Your task to perform on an android device: uninstall "Spotify" Image 0: 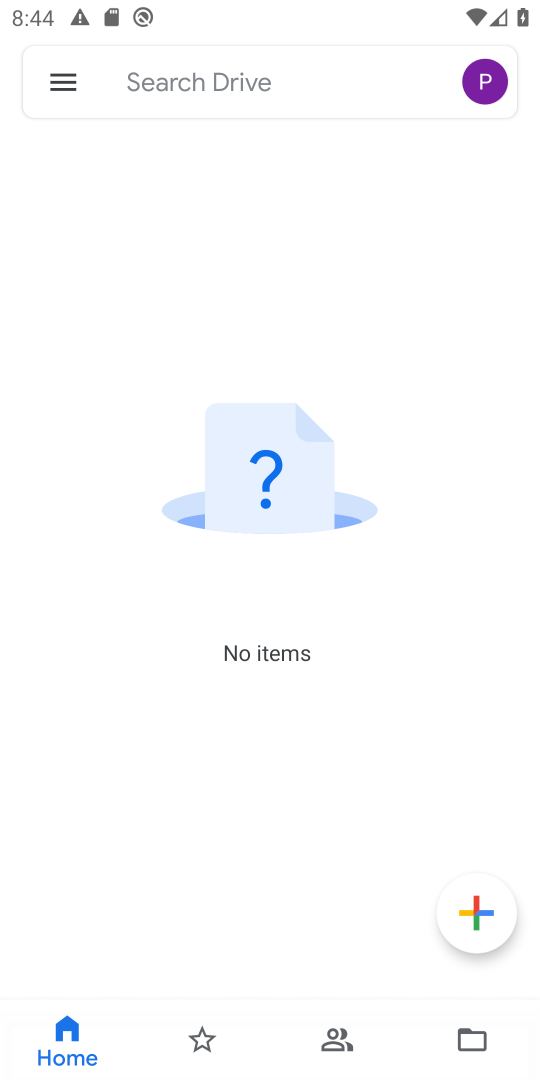
Step 0: press home button
Your task to perform on an android device: uninstall "Spotify" Image 1: 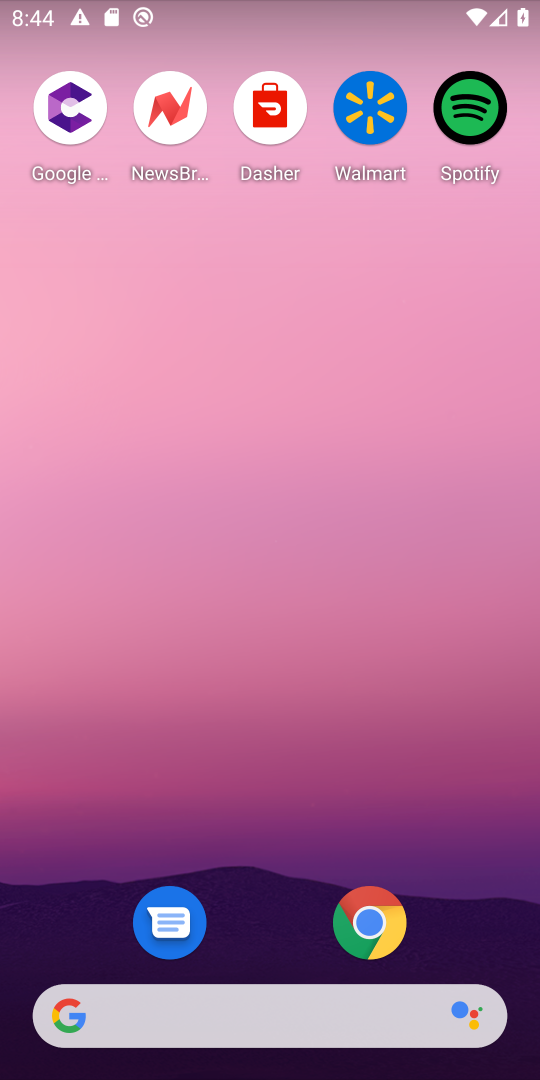
Step 1: drag from (259, 662) to (289, 92)
Your task to perform on an android device: uninstall "Spotify" Image 2: 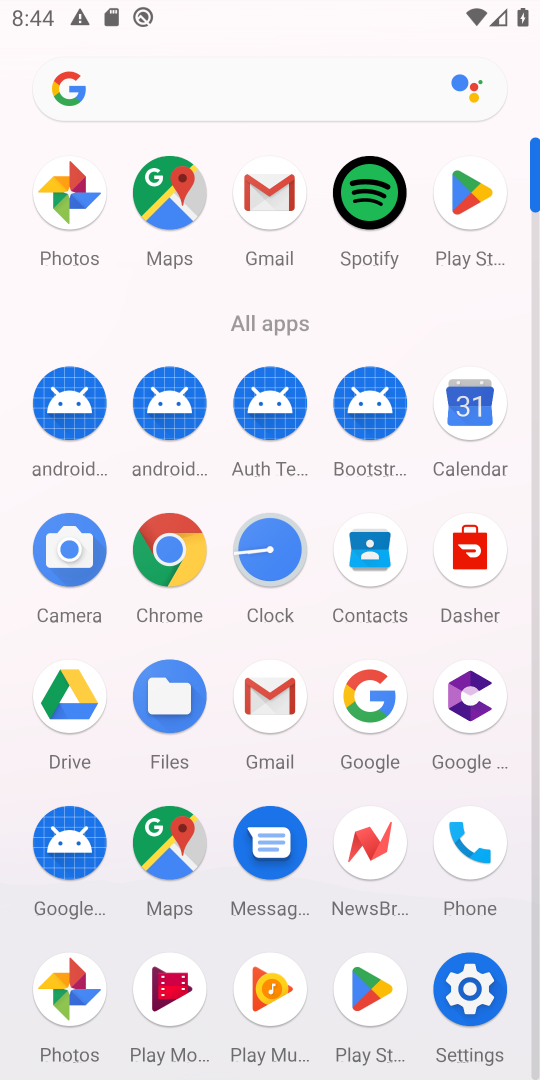
Step 2: click (463, 201)
Your task to perform on an android device: uninstall "Spotify" Image 3: 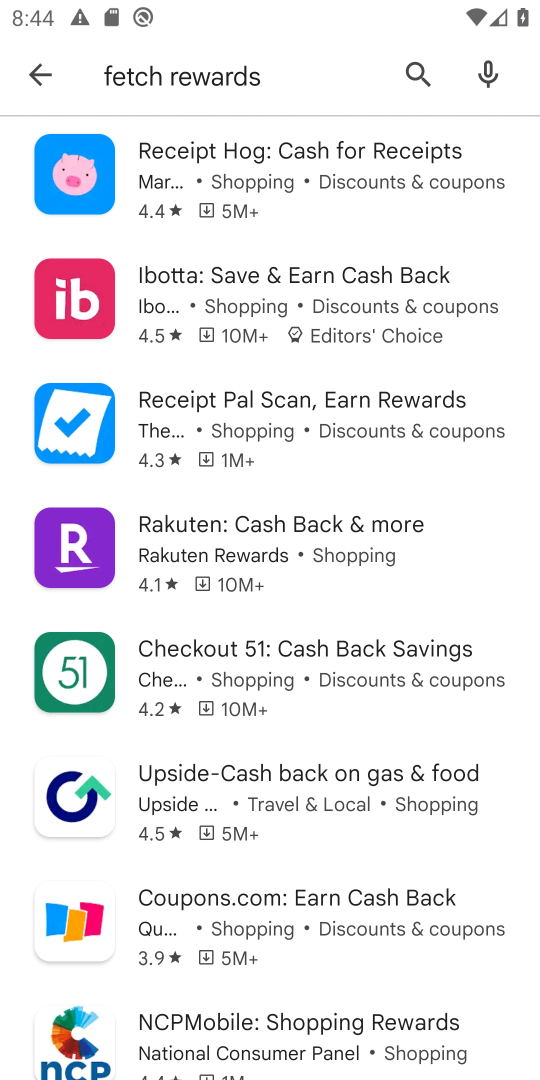
Step 3: click (411, 70)
Your task to perform on an android device: uninstall "Spotify" Image 4: 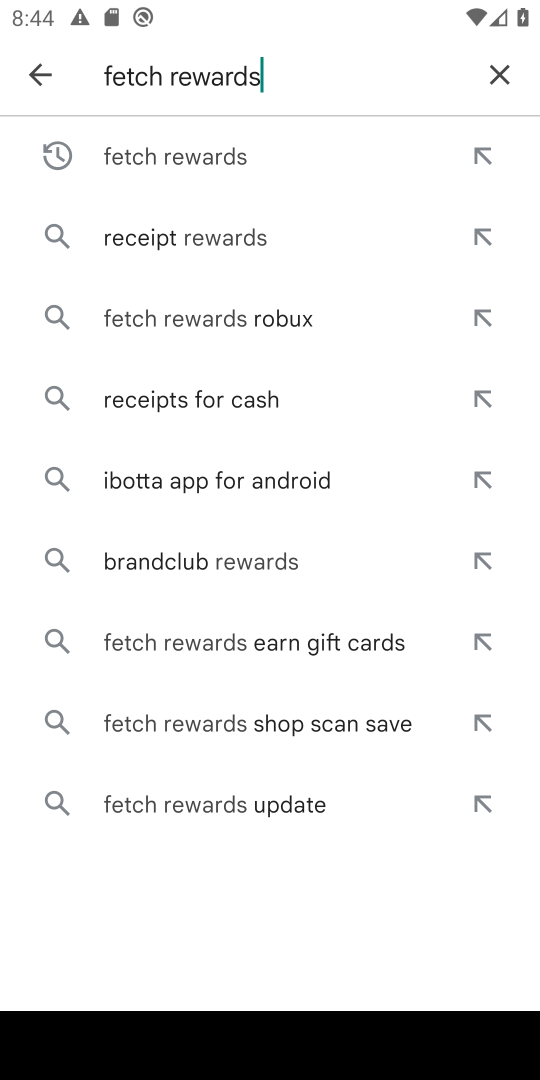
Step 4: click (498, 71)
Your task to perform on an android device: uninstall "Spotify" Image 5: 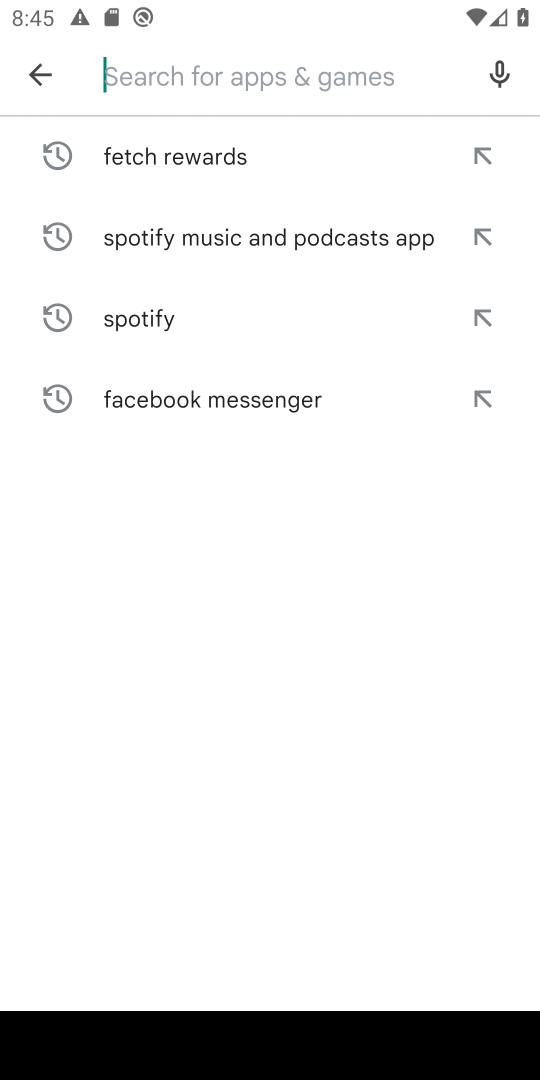
Step 5: type "Spotify"
Your task to perform on an android device: uninstall "Spotify" Image 6: 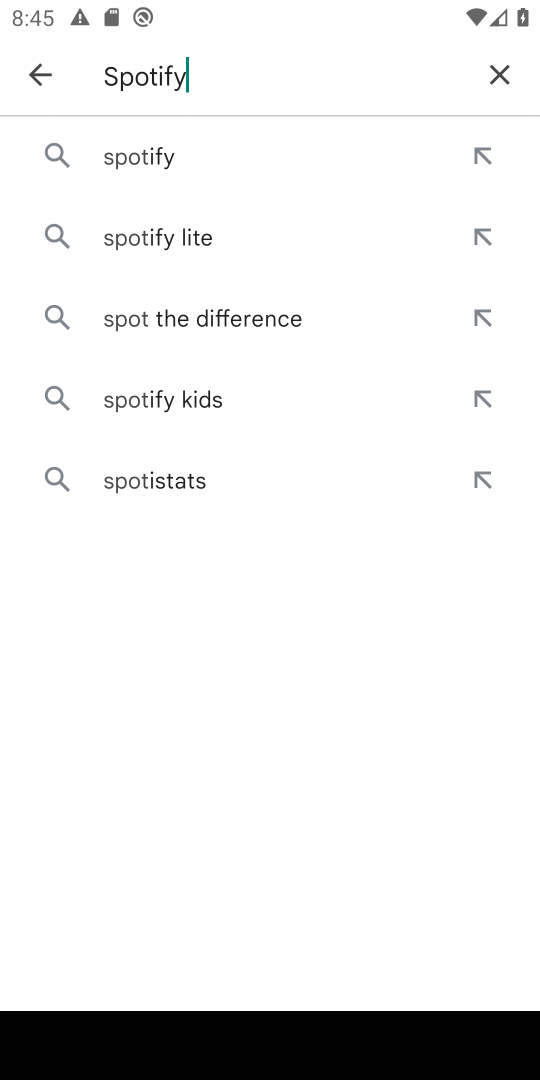
Step 6: type ""
Your task to perform on an android device: uninstall "Spotify" Image 7: 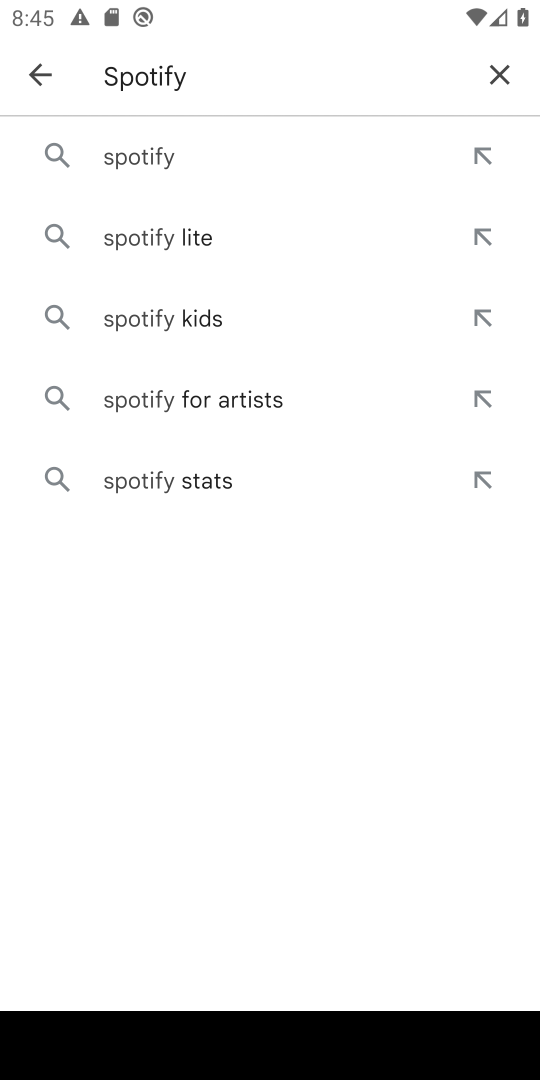
Step 7: click (136, 155)
Your task to perform on an android device: uninstall "Spotify" Image 8: 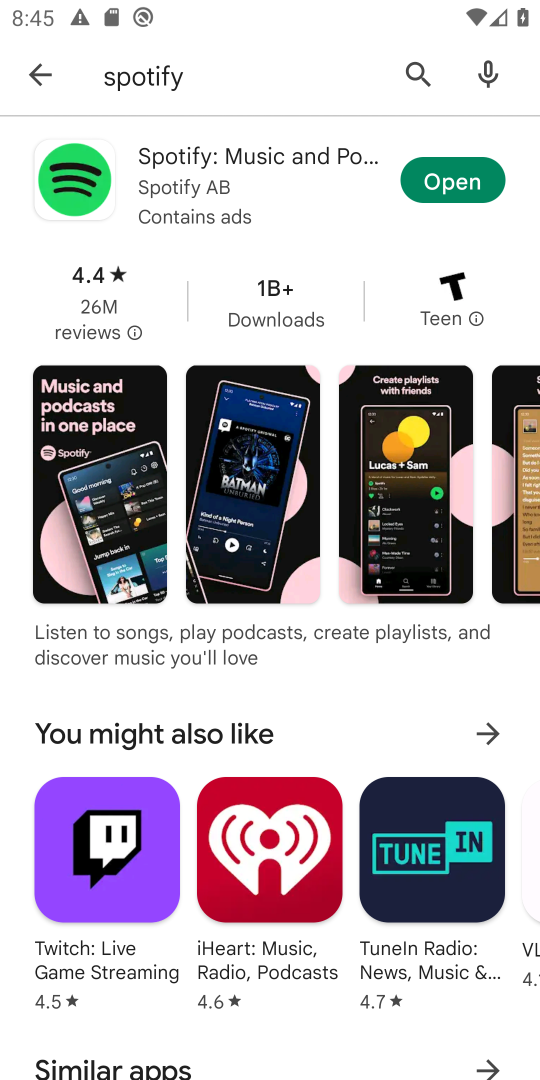
Step 8: click (195, 146)
Your task to perform on an android device: uninstall "Spotify" Image 9: 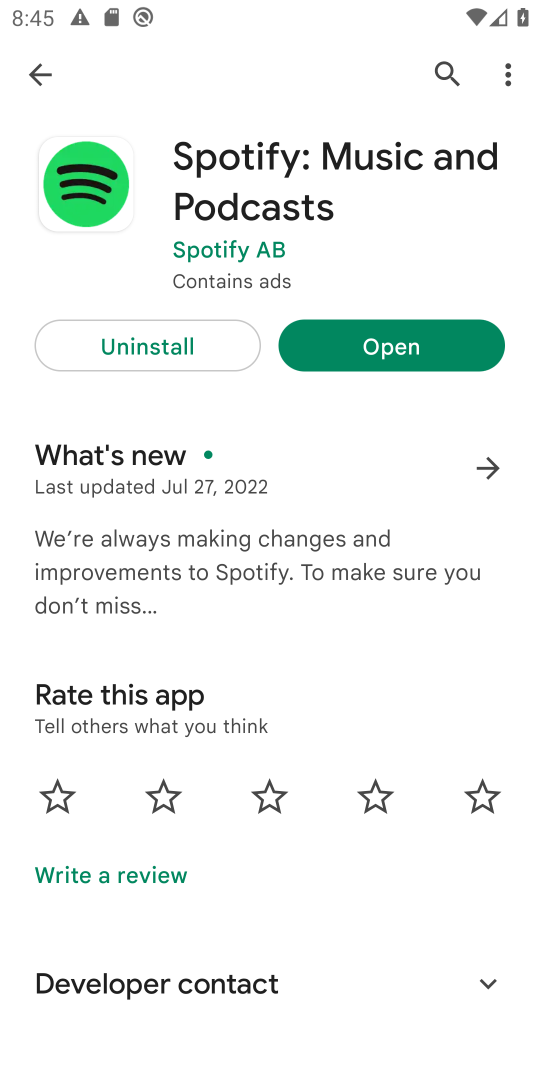
Step 9: click (157, 339)
Your task to perform on an android device: uninstall "Spotify" Image 10: 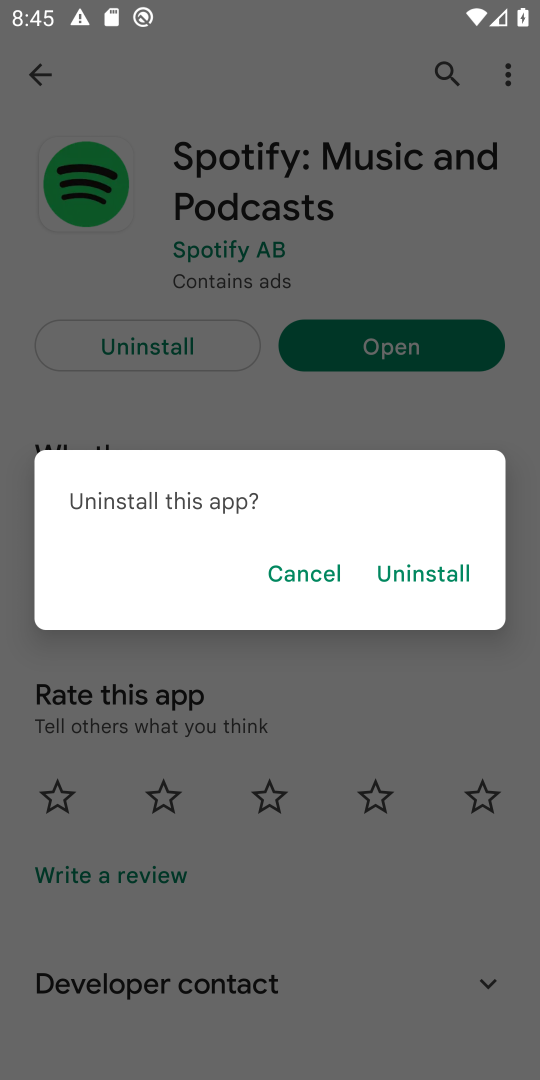
Step 10: click (434, 567)
Your task to perform on an android device: uninstall "Spotify" Image 11: 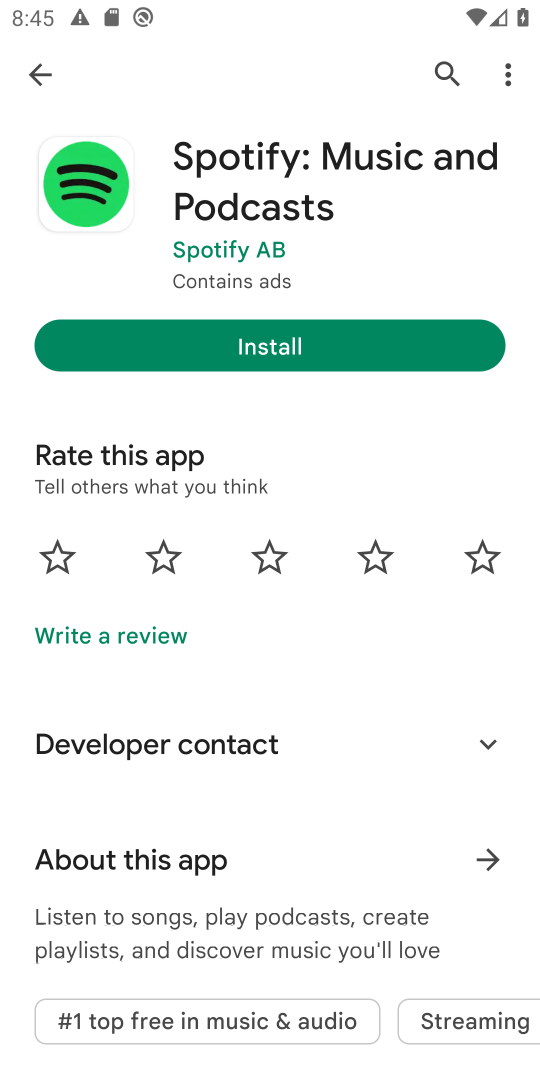
Step 11: task complete